Your task to perform on an android device: Go to Amazon Image 0: 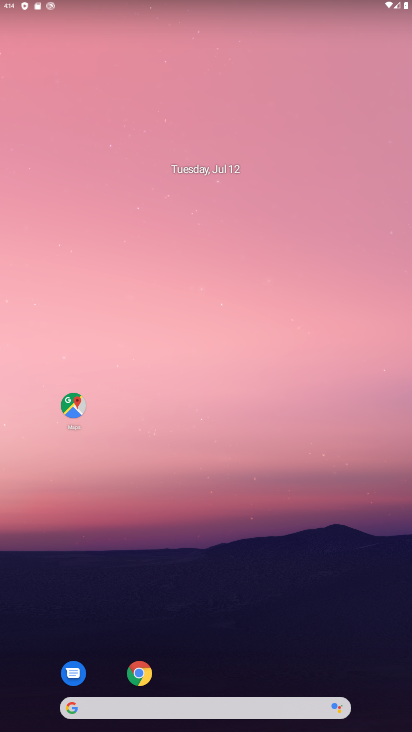
Step 0: drag from (260, 592) to (283, 19)
Your task to perform on an android device: Go to Amazon Image 1: 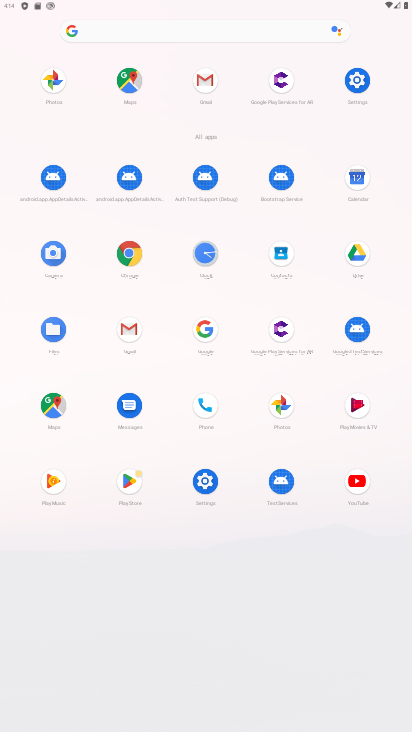
Step 1: click (125, 254)
Your task to perform on an android device: Go to Amazon Image 2: 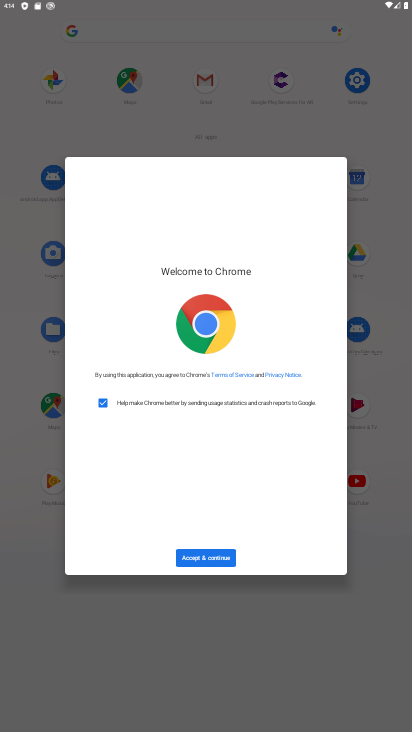
Step 2: click (212, 560)
Your task to perform on an android device: Go to Amazon Image 3: 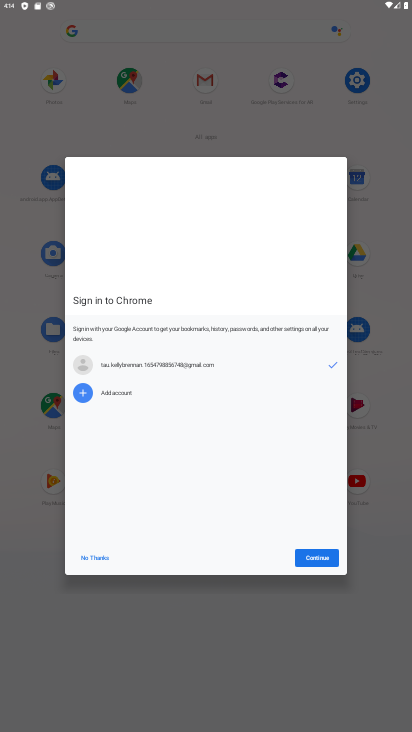
Step 3: click (94, 551)
Your task to perform on an android device: Go to Amazon Image 4: 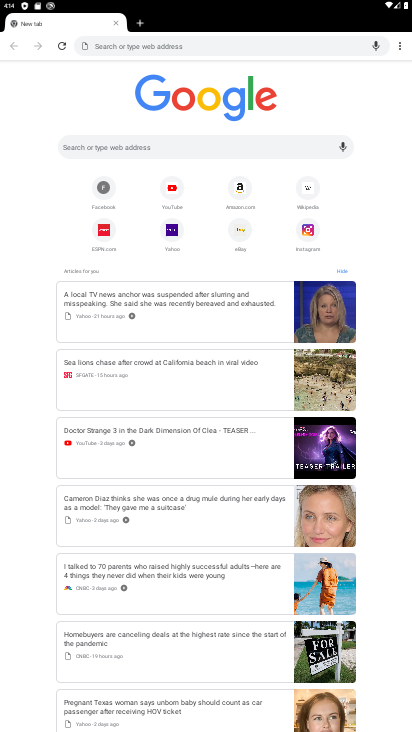
Step 4: click (247, 191)
Your task to perform on an android device: Go to Amazon Image 5: 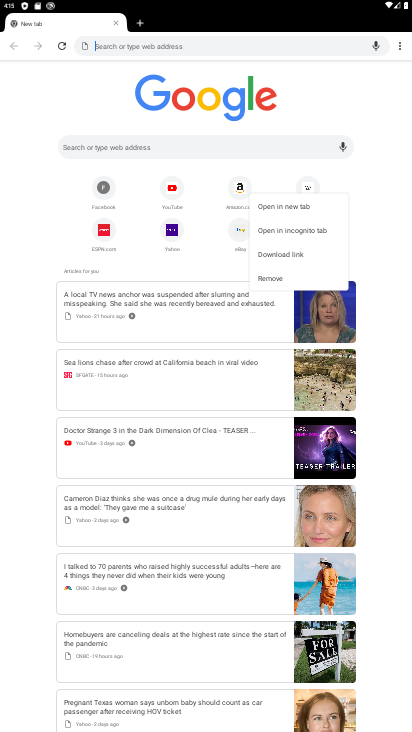
Step 5: task complete